Your task to perform on an android device: Open Amazon Image 0: 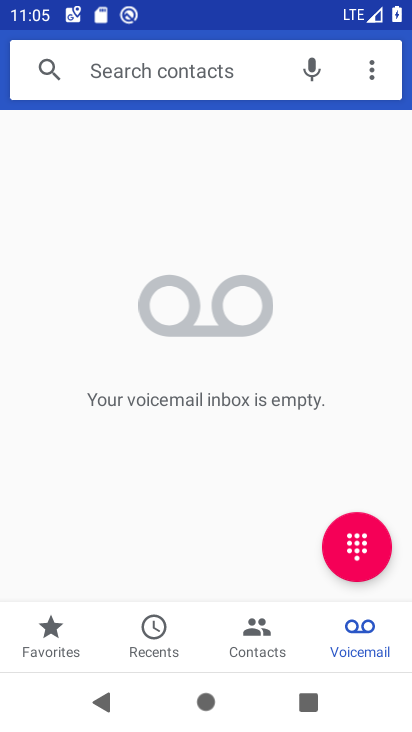
Step 0: press home button
Your task to perform on an android device: Open Amazon Image 1: 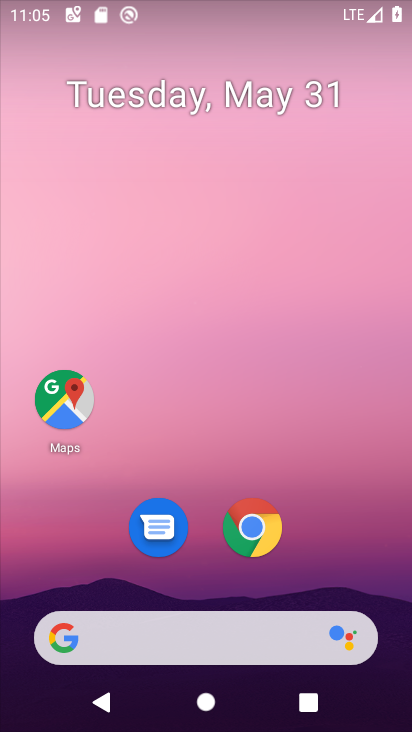
Step 1: click (248, 531)
Your task to perform on an android device: Open Amazon Image 2: 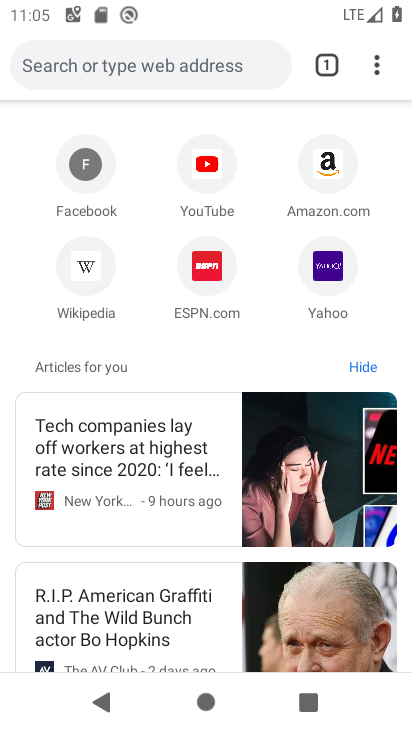
Step 2: click (342, 179)
Your task to perform on an android device: Open Amazon Image 3: 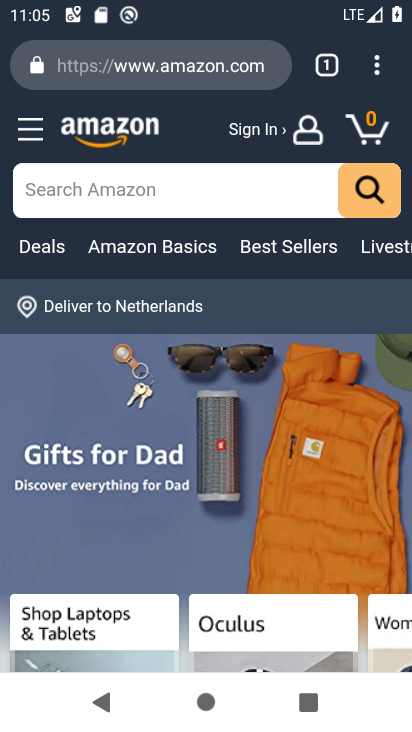
Step 3: task complete